Your task to perform on an android device: Open calendar and show me the second week of next month Image 0: 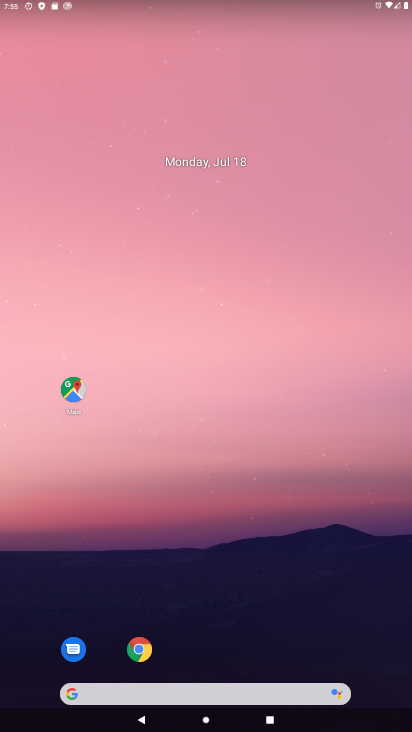
Step 0: drag from (330, 576) to (246, 68)
Your task to perform on an android device: Open calendar and show me the second week of next month Image 1: 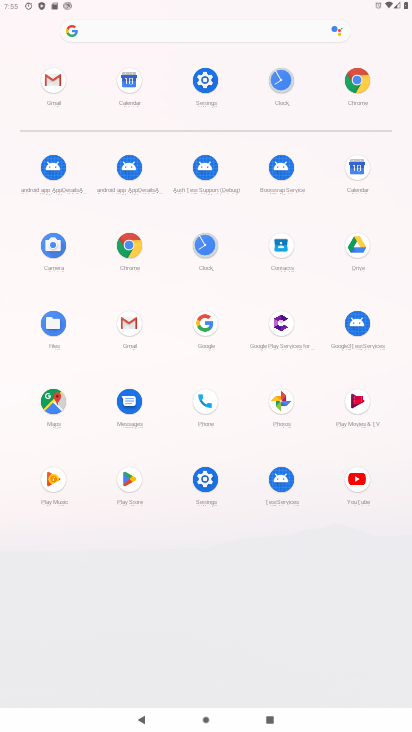
Step 1: click (358, 161)
Your task to perform on an android device: Open calendar and show me the second week of next month Image 2: 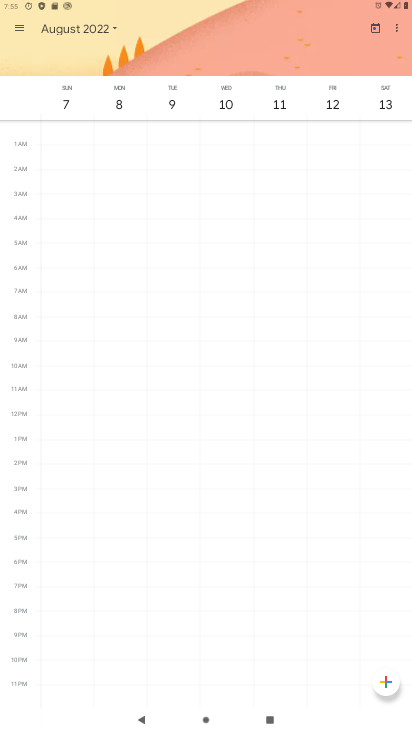
Step 2: task complete